Your task to perform on an android device: turn off translation in the chrome app Image 0: 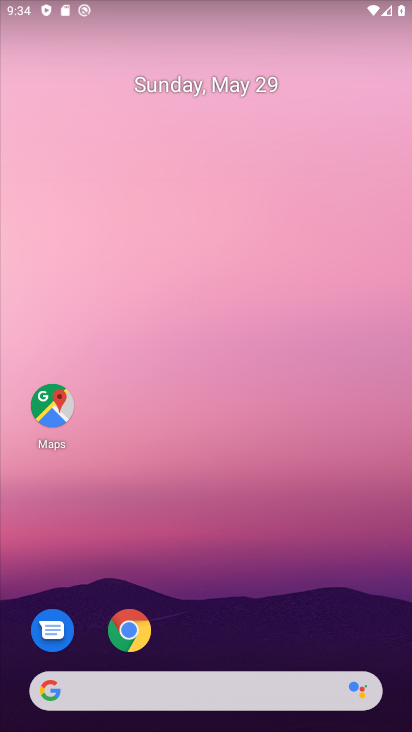
Step 0: click (131, 639)
Your task to perform on an android device: turn off translation in the chrome app Image 1: 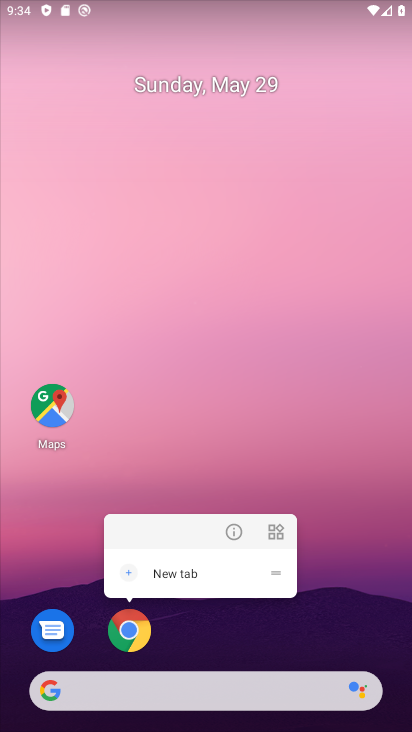
Step 1: click (131, 638)
Your task to perform on an android device: turn off translation in the chrome app Image 2: 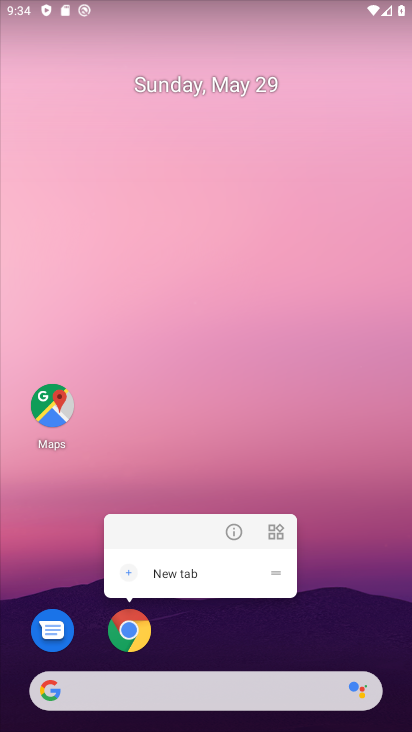
Step 2: click (131, 627)
Your task to perform on an android device: turn off translation in the chrome app Image 3: 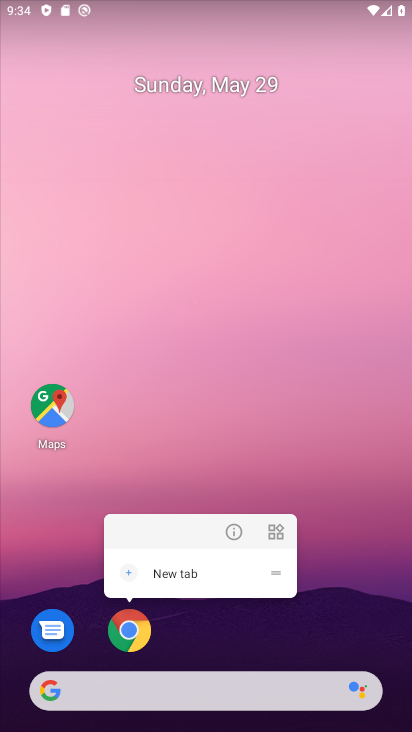
Step 3: click (131, 623)
Your task to perform on an android device: turn off translation in the chrome app Image 4: 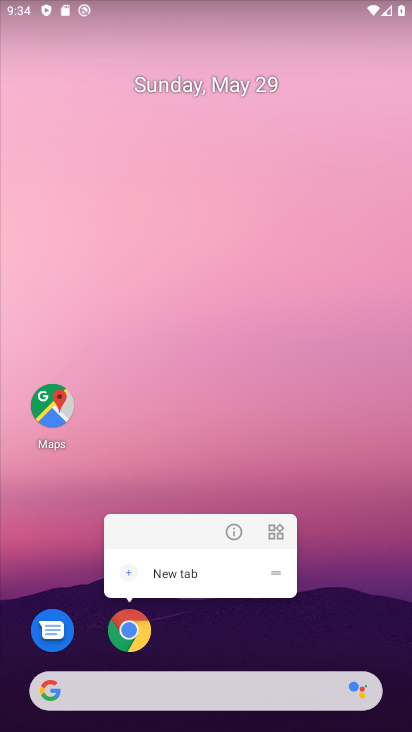
Step 4: click (129, 633)
Your task to perform on an android device: turn off translation in the chrome app Image 5: 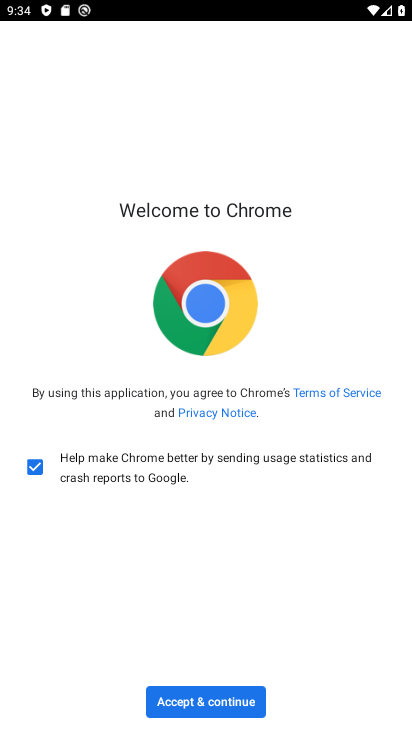
Step 5: click (237, 700)
Your task to perform on an android device: turn off translation in the chrome app Image 6: 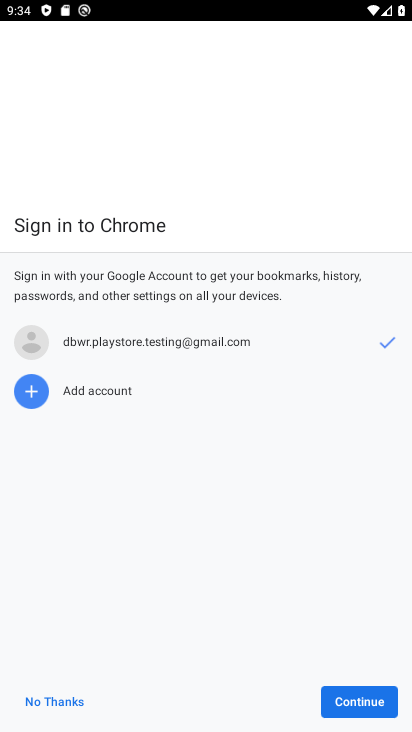
Step 6: click (345, 697)
Your task to perform on an android device: turn off translation in the chrome app Image 7: 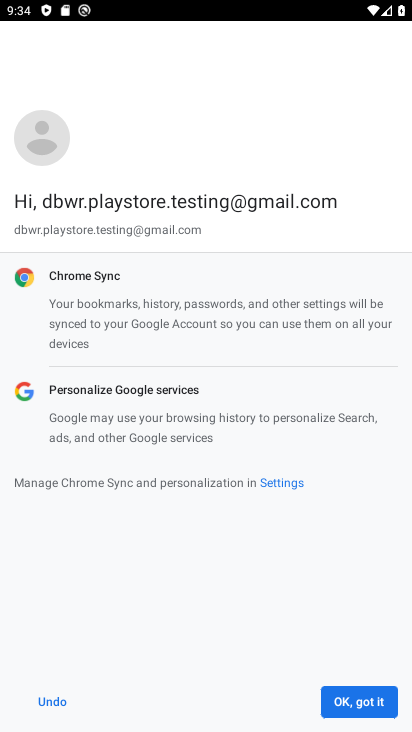
Step 7: click (360, 696)
Your task to perform on an android device: turn off translation in the chrome app Image 8: 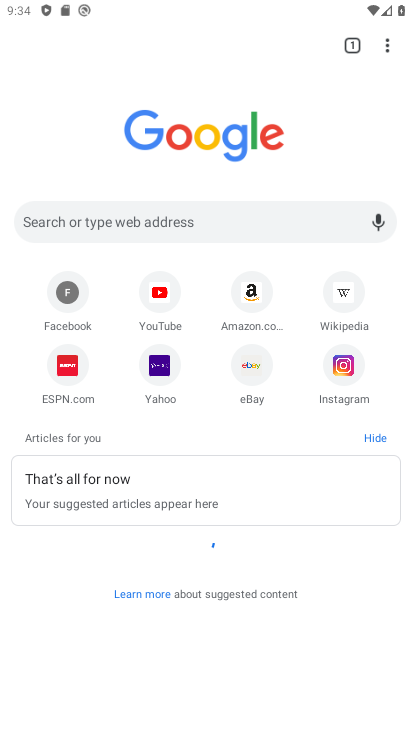
Step 8: click (410, 121)
Your task to perform on an android device: turn off translation in the chrome app Image 9: 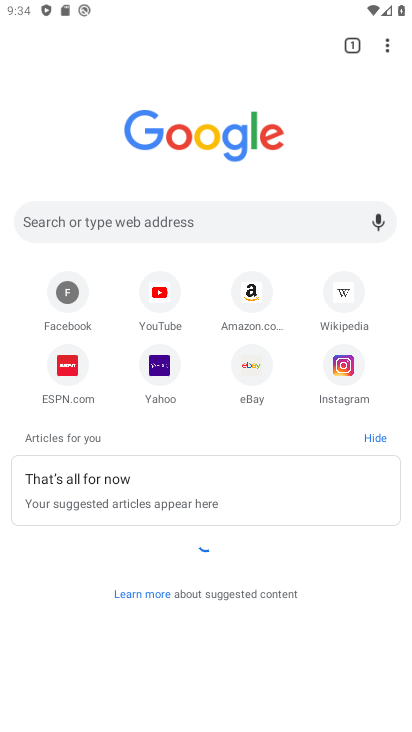
Step 9: drag from (396, 46) to (313, 382)
Your task to perform on an android device: turn off translation in the chrome app Image 10: 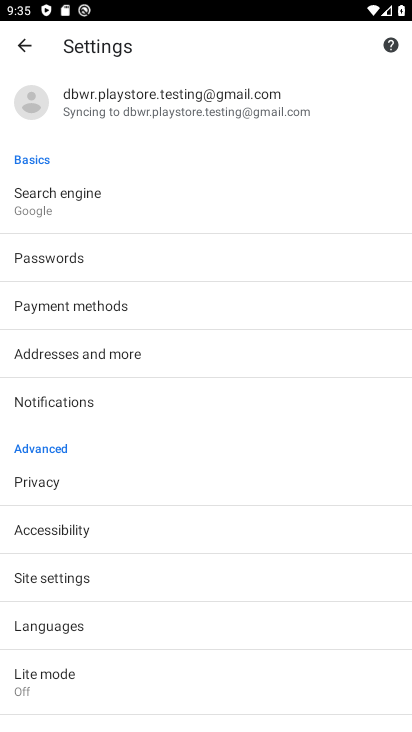
Step 10: click (117, 625)
Your task to perform on an android device: turn off translation in the chrome app Image 11: 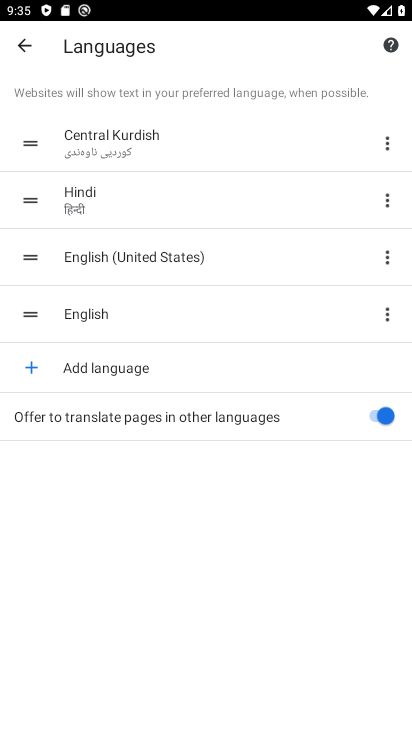
Step 11: click (378, 410)
Your task to perform on an android device: turn off translation in the chrome app Image 12: 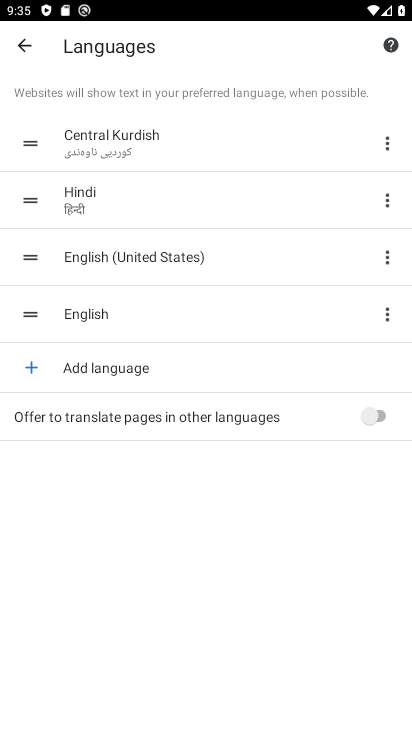
Step 12: task complete